Your task to perform on an android device: move a message to another label in the gmail app Image 0: 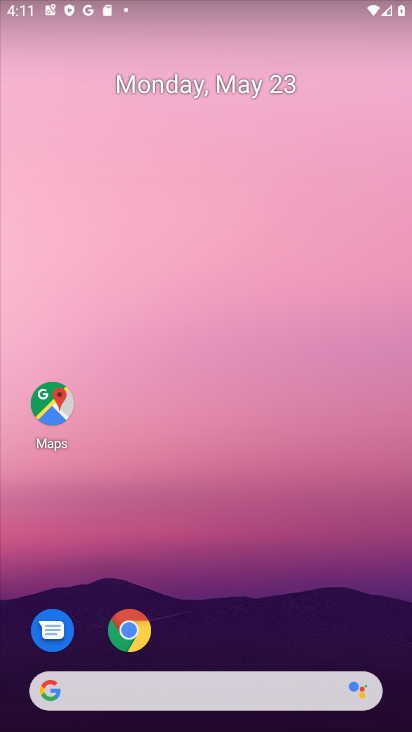
Step 0: drag from (211, 648) to (206, 105)
Your task to perform on an android device: move a message to another label in the gmail app Image 1: 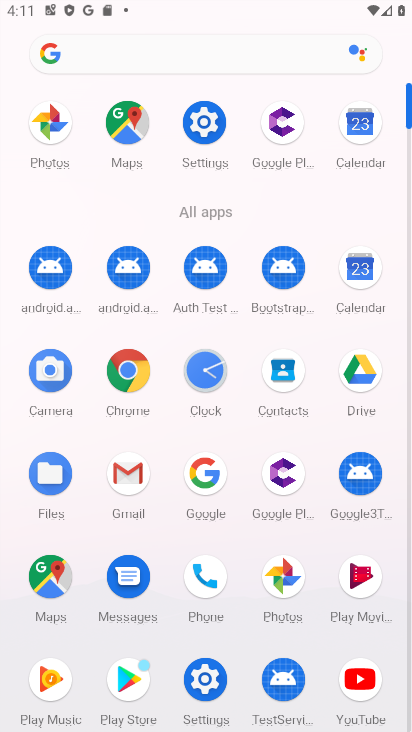
Step 1: click (129, 468)
Your task to perform on an android device: move a message to another label in the gmail app Image 2: 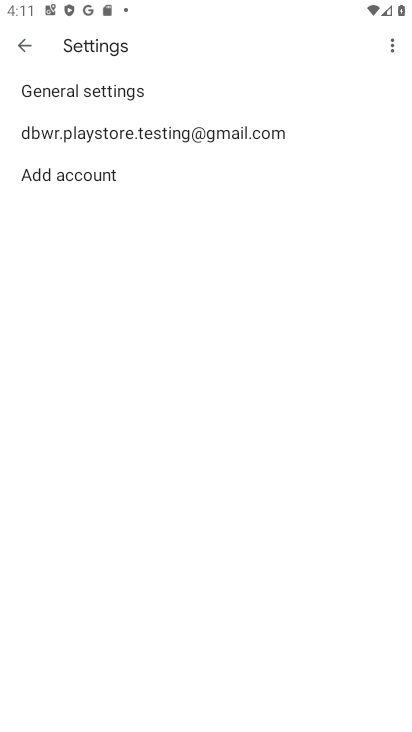
Step 2: click (20, 39)
Your task to perform on an android device: move a message to another label in the gmail app Image 3: 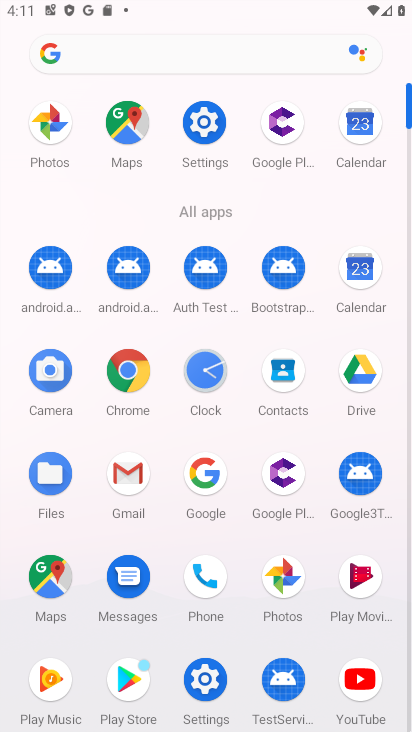
Step 3: click (127, 473)
Your task to perform on an android device: move a message to another label in the gmail app Image 4: 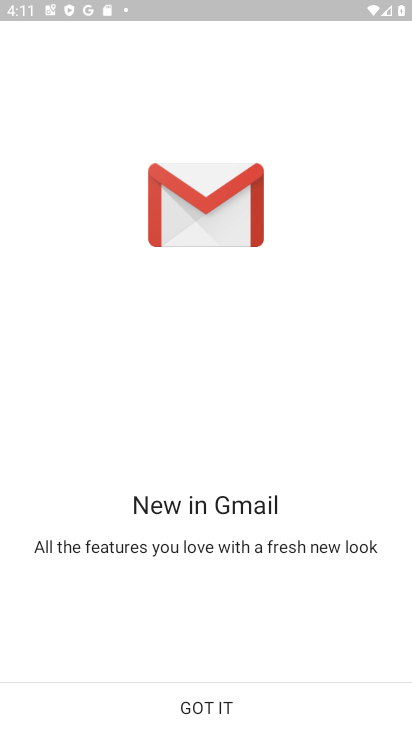
Step 4: click (211, 700)
Your task to perform on an android device: move a message to another label in the gmail app Image 5: 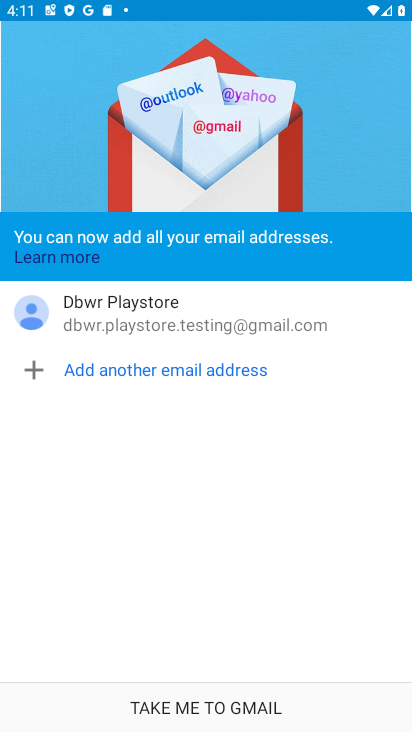
Step 5: click (211, 700)
Your task to perform on an android device: move a message to another label in the gmail app Image 6: 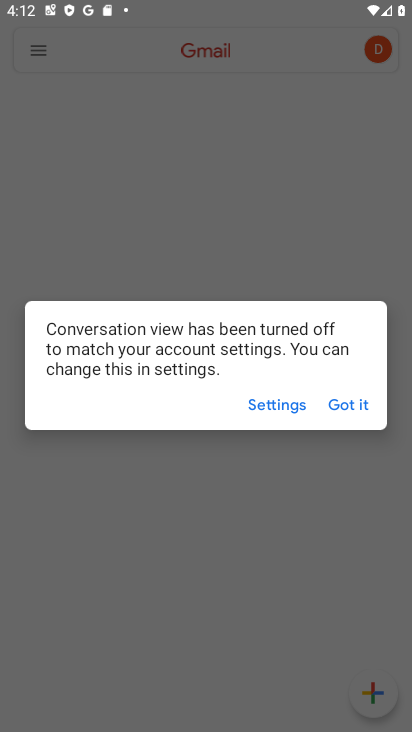
Step 6: click (342, 405)
Your task to perform on an android device: move a message to another label in the gmail app Image 7: 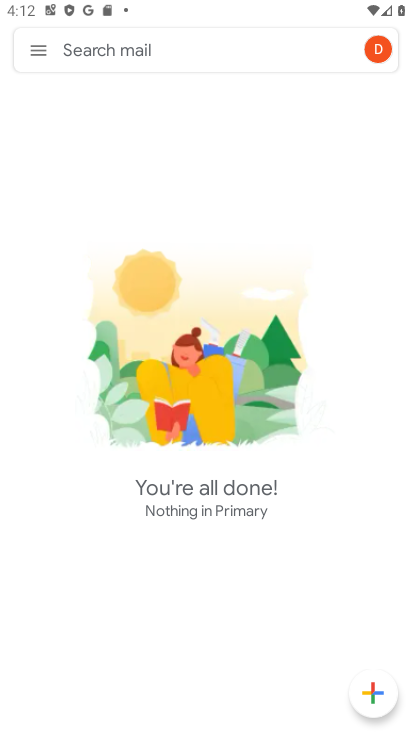
Step 7: task complete